Your task to perform on an android device: star an email in the gmail app Image 0: 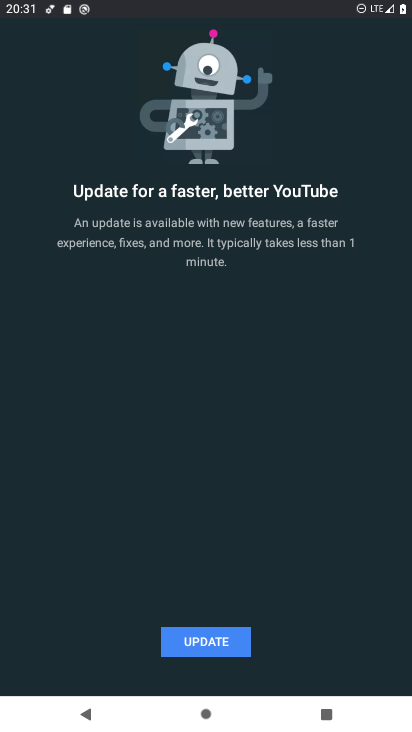
Step 0: press home button
Your task to perform on an android device: star an email in the gmail app Image 1: 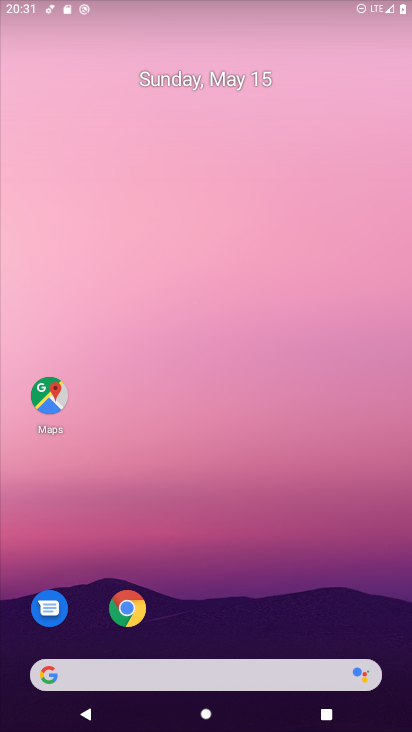
Step 1: drag from (182, 555) to (212, 4)
Your task to perform on an android device: star an email in the gmail app Image 2: 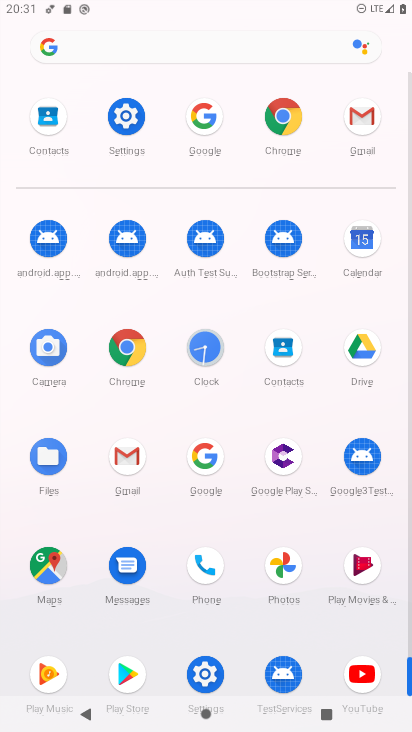
Step 2: click (121, 459)
Your task to perform on an android device: star an email in the gmail app Image 3: 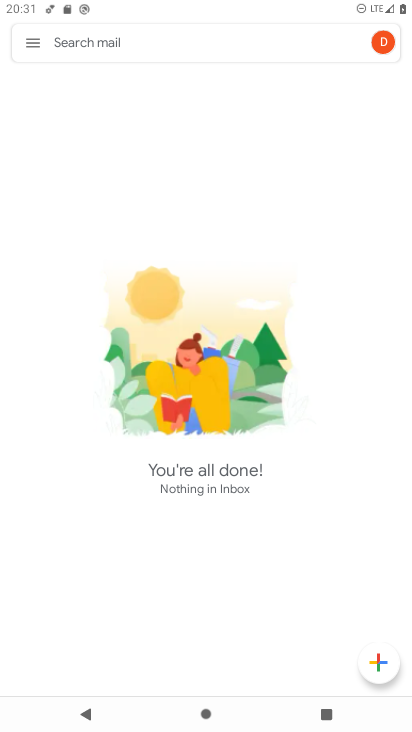
Step 3: click (37, 40)
Your task to perform on an android device: star an email in the gmail app Image 4: 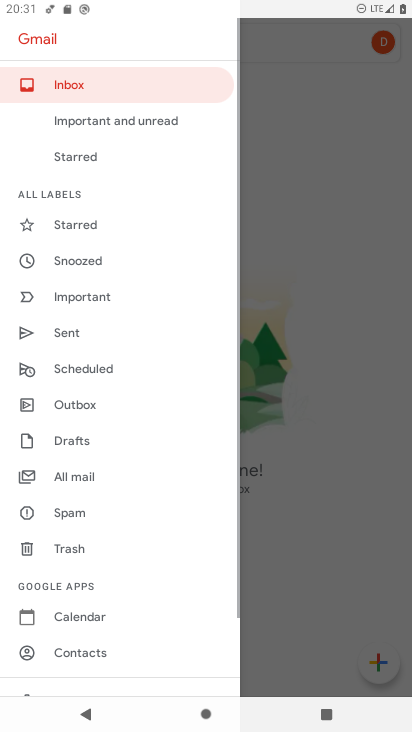
Step 4: click (96, 468)
Your task to perform on an android device: star an email in the gmail app Image 5: 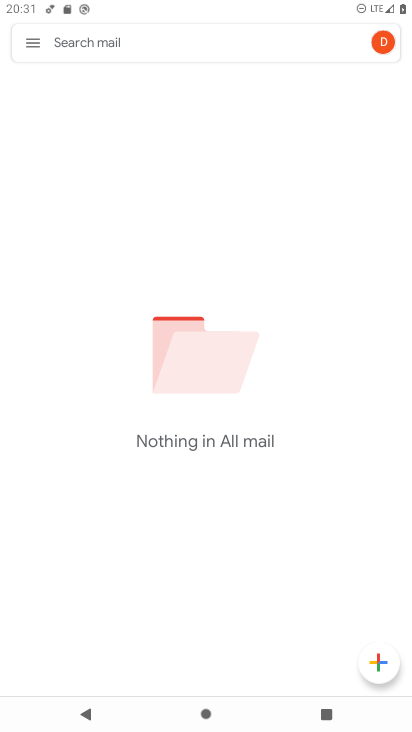
Step 5: task complete